Your task to perform on an android device: Open the map Image 0: 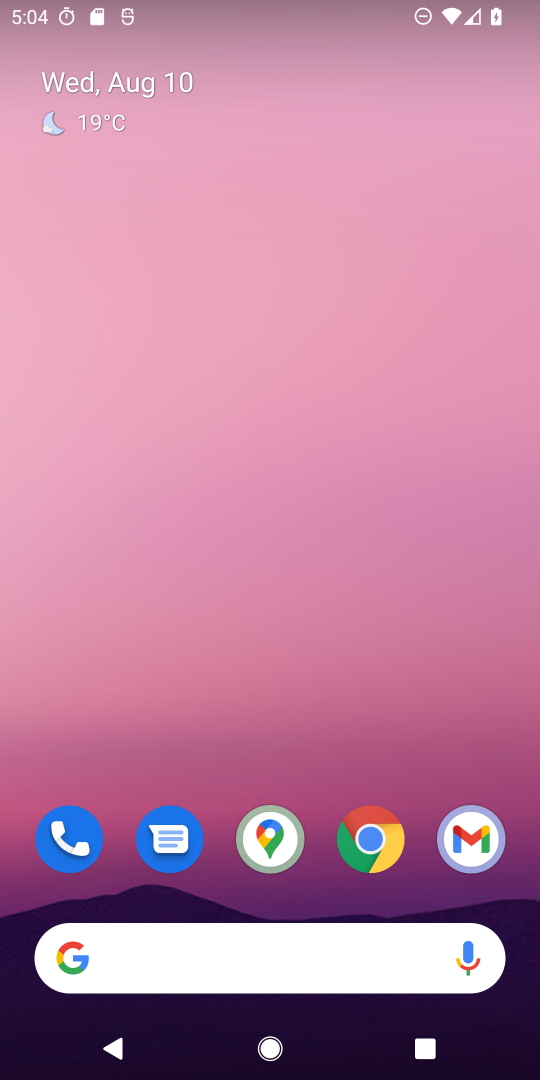
Step 0: click (267, 838)
Your task to perform on an android device: Open the map Image 1: 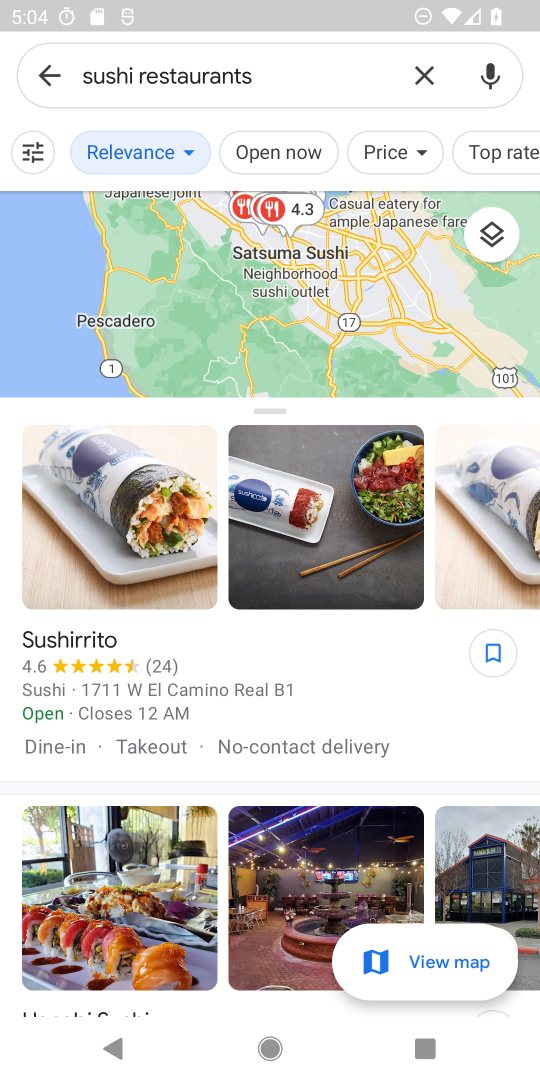
Step 1: click (44, 74)
Your task to perform on an android device: Open the map Image 2: 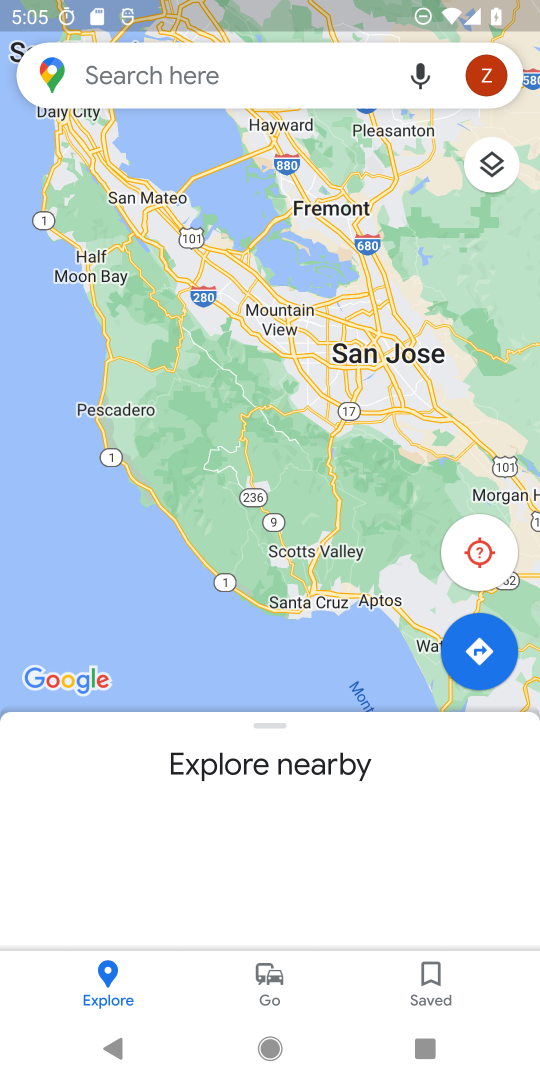
Step 2: task complete